Your task to perform on an android device: move a message to another label in the gmail app Image 0: 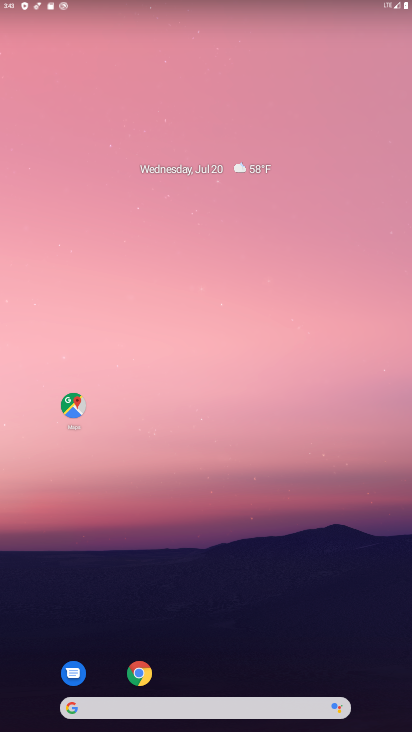
Step 0: drag from (208, 519) to (234, 222)
Your task to perform on an android device: move a message to another label in the gmail app Image 1: 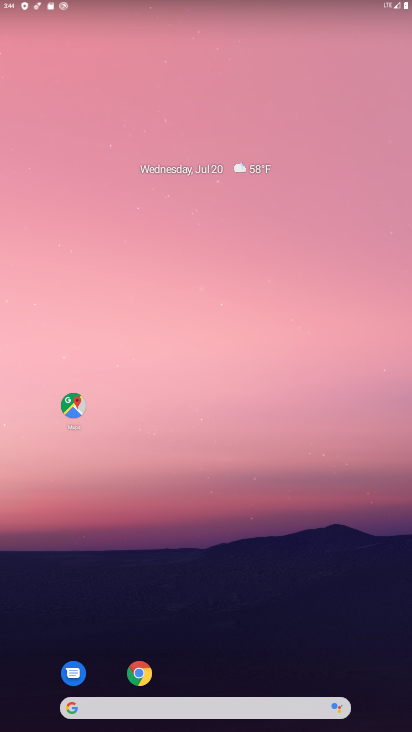
Step 1: drag from (227, 585) to (220, 328)
Your task to perform on an android device: move a message to another label in the gmail app Image 2: 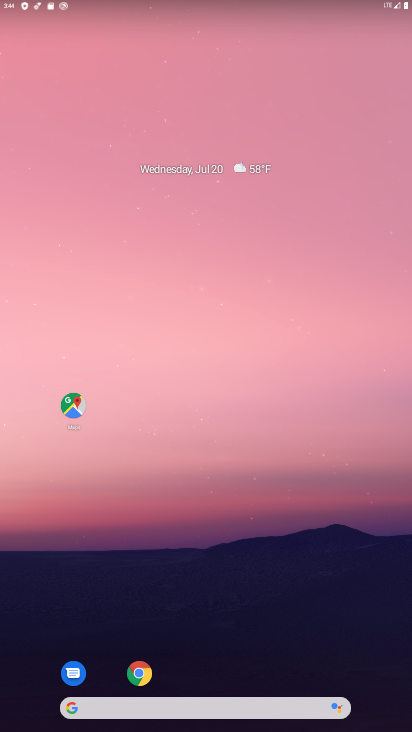
Step 2: drag from (237, 609) to (208, 200)
Your task to perform on an android device: move a message to another label in the gmail app Image 3: 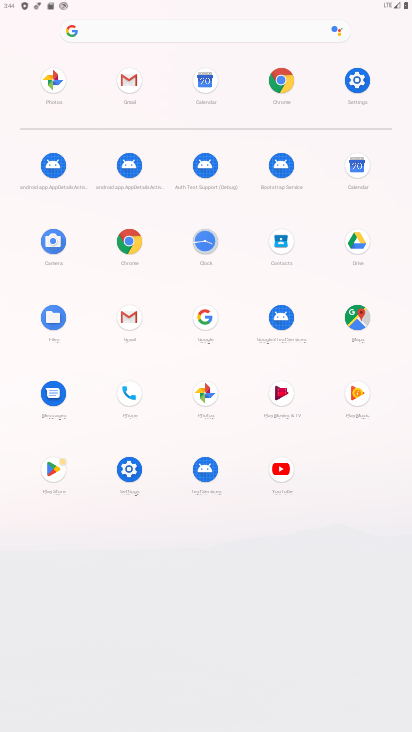
Step 3: click (141, 311)
Your task to perform on an android device: move a message to another label in the gmail app Image 4: 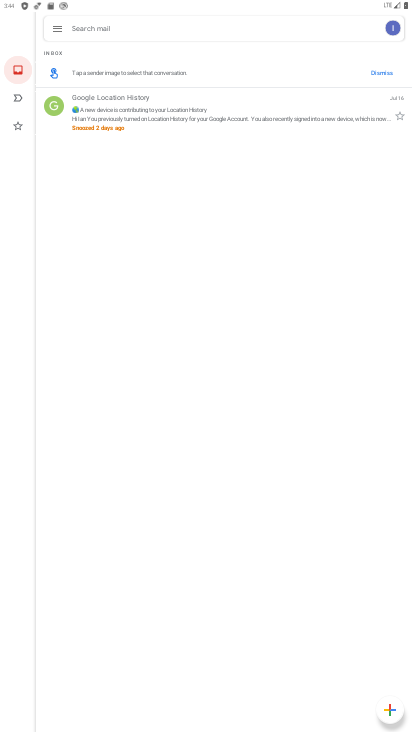
Step 4: task complete